Your task to perform on an android device: delete the emails in spam in the gmail app Image 0: 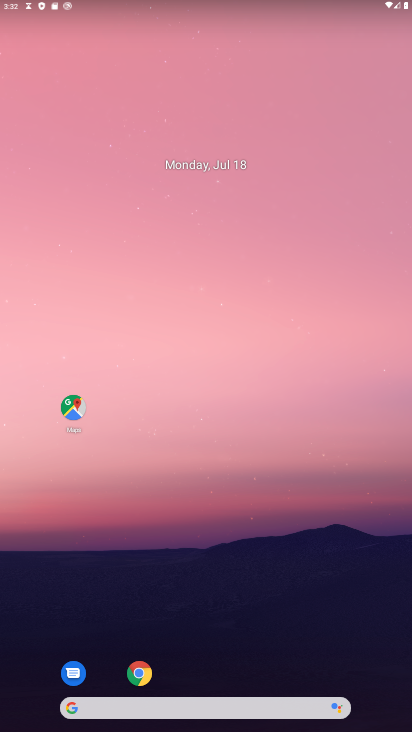
Step 0: drag from (237, 631) to (256, 156)
Your task to perform on an android device: delete the emails in spam in the gmail app Image 1: 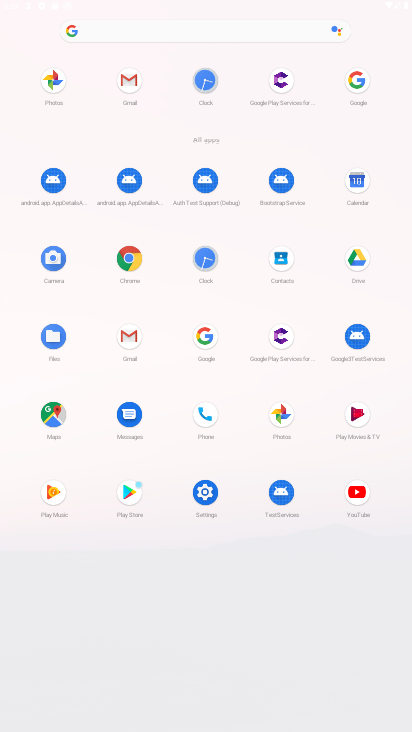
Step 1: click (130, 324)
Your task to perform on an android device: delete the emails in spam in the gmail app Image 2: 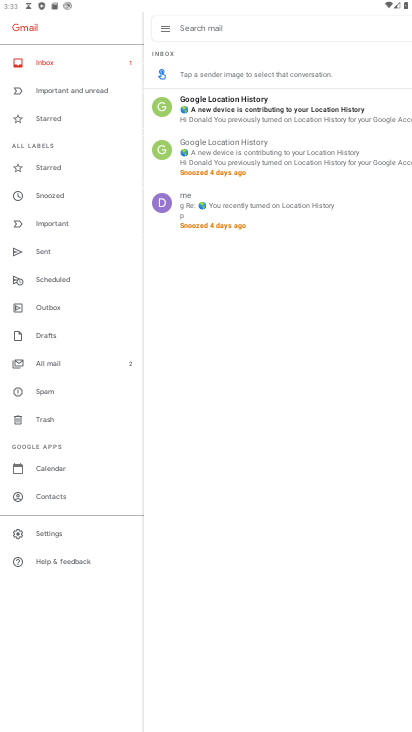
Step 2: click (56, 397)
Your task to perform on an android device: delete the emails in spam in the gmail app Image 3: 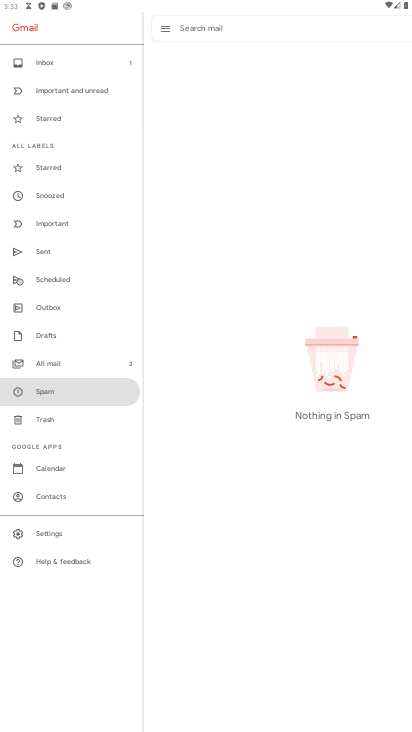
Step 3: task complete